Your task to perform on an android device: Search for vegetarian restaurants on Maps Image 0: 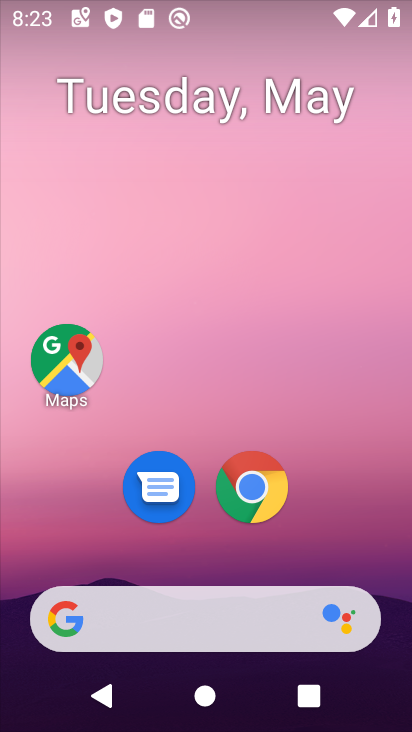
Step 0: drag from (377, 549) to (382, 235)
Your task to perform on an android device: Search for vegetarian restaurants on Maps Image 1: 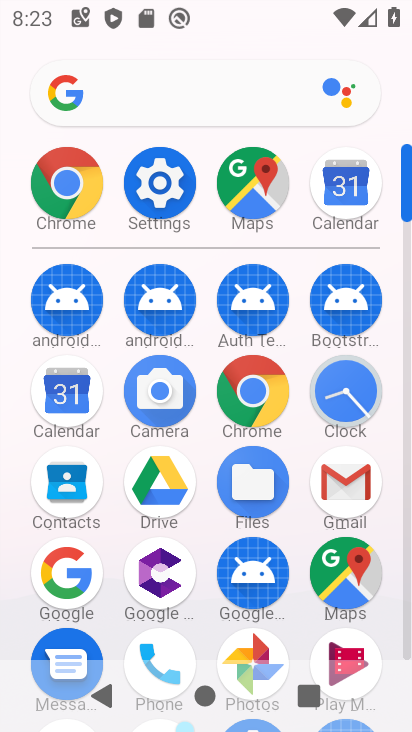
Step 1: click (340, 596)
Your task to perform on an android device: Search for vegetarian restaurants on Maps Image 2: 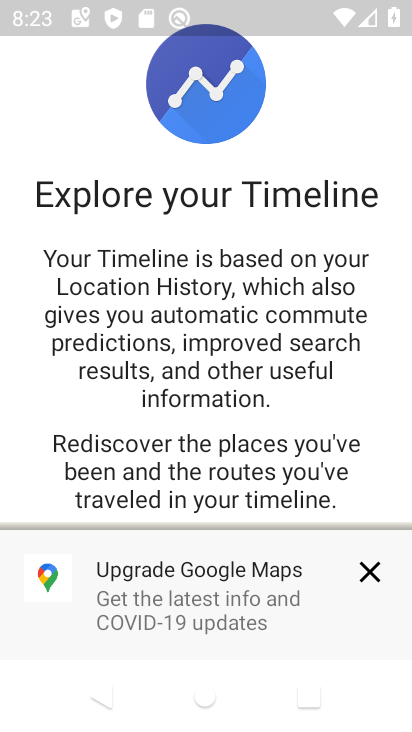
Step 2: press back button
Your task to perform on an android device: Search for vegetarian restaurants on Maps Image 3: 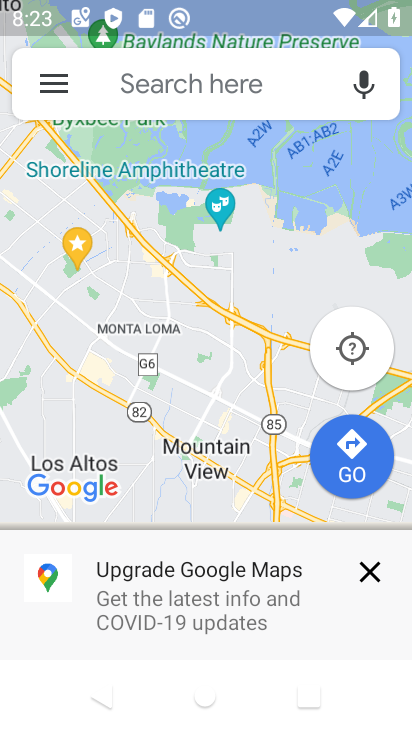
Step 3: click (228, 90)
Your task to perform on an android device: Search for vegetarian restaurants on Maps Image 4: 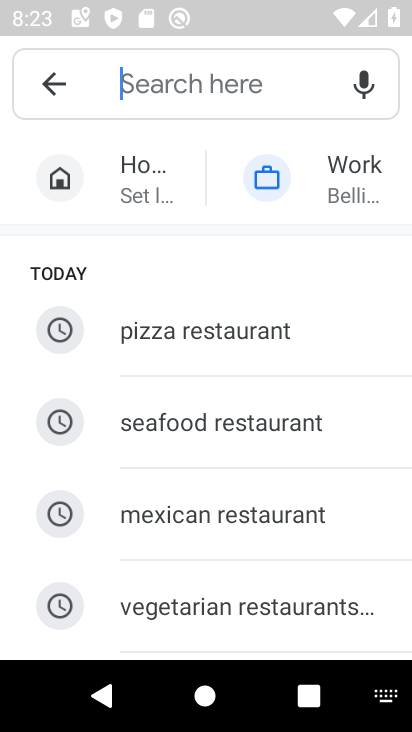
Step 4: type "vegetrain restaurants"
Your task to perform on an android device: Search for vegetarian restaurants on Maps Image 5: 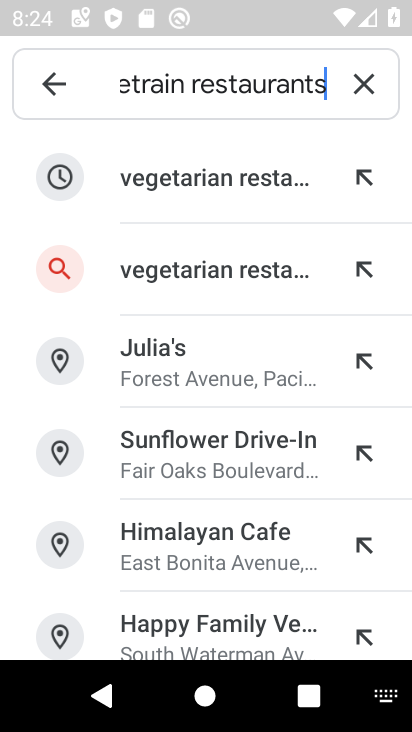
Step 5: click (277, 186)
Your task to perform on an android device: Search for vegetarian restaurants on Maps Image 6: 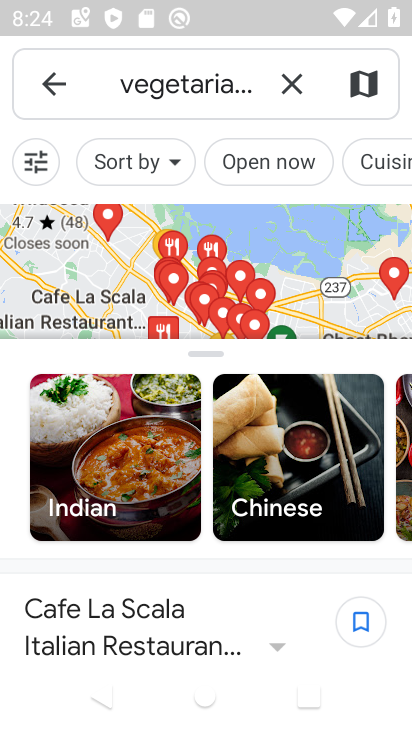
Step 6: task complete